Your task to perform on an android device: turn on bluetooth scan Image 0: 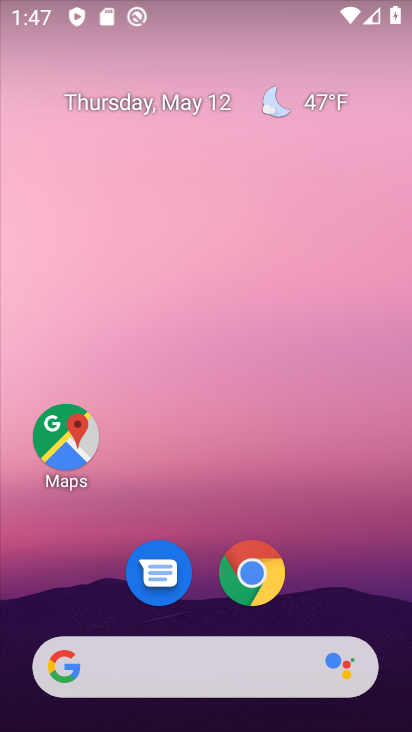
Step 0: drag from (209, 619) to (229, 44)
Your task to perform on an android device: turn on bluetooth scan Image 1: 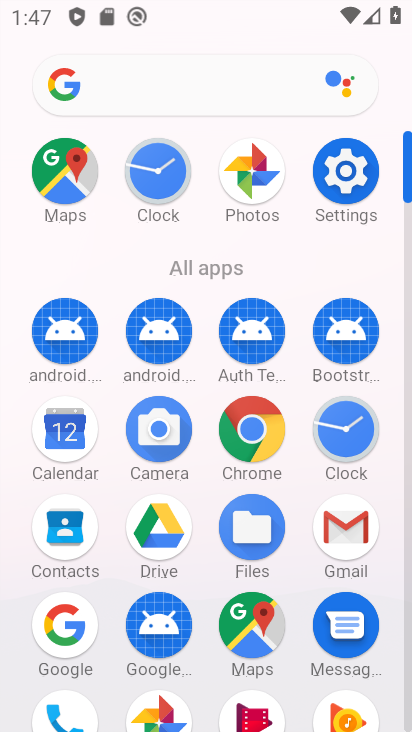
Step 1: click (335, 187)
Your task to perform on an android device: turn on bluetooth scan Image 2: 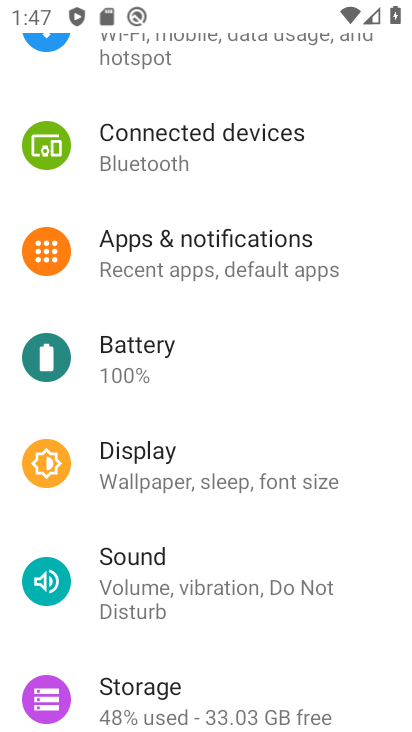
Step 2: drag from (188, 554) to (270, 185)
Your task to perform on an android device: turn on bluetooth scan Image 3: 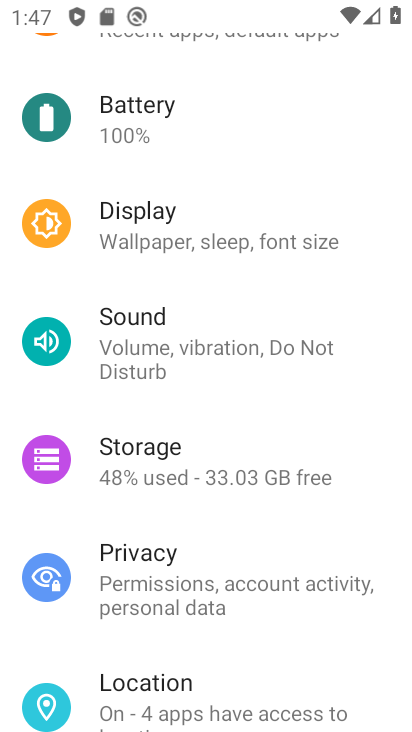
Step 3: click (115, 706)
Your task to perform on an android device: turn on bluetooth scan Image 4: 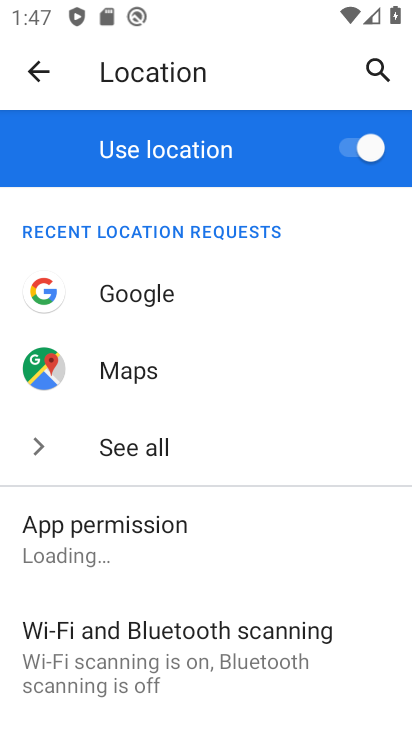
Step 4: click (115, 706)
Your task to perform on an android device: turn on bluetooth scan Image 5: 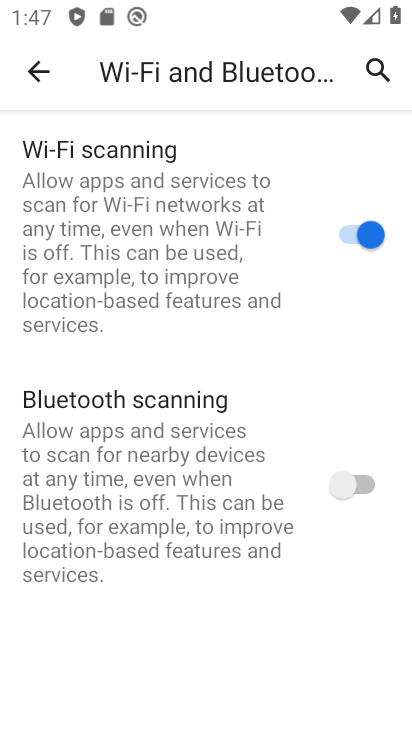
Step 5: click (365, 491)
Your task to perform on an android device: turn on bluetooth scan Image 6: 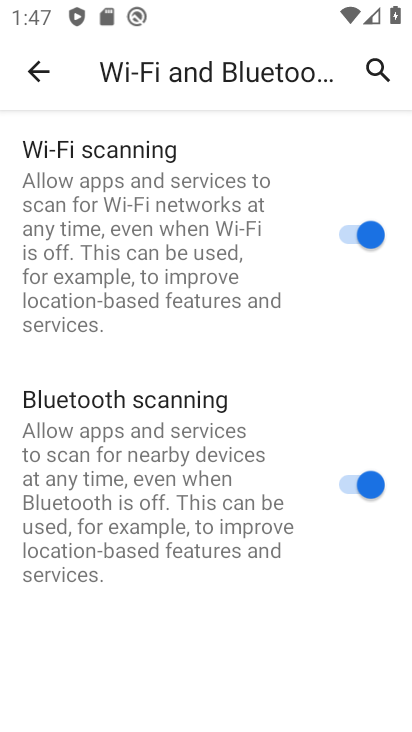
Step 6: task complete